Your task to perform on an android device: find which apps use the phone's location Image 0: 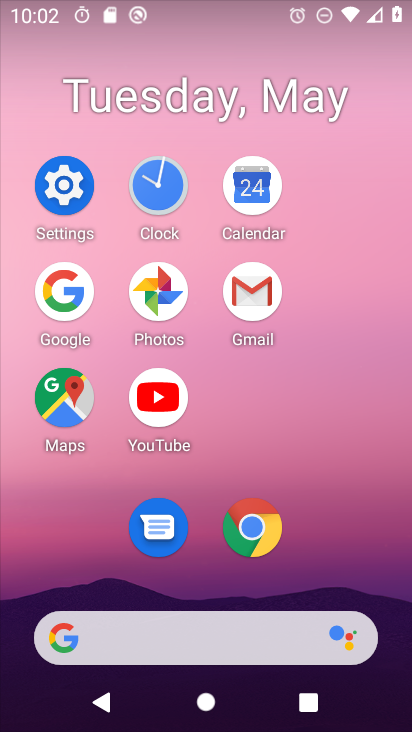
Step 0: click (77, 196)
Your task to perform on an android device: find which apps use the phone's location Image 1: 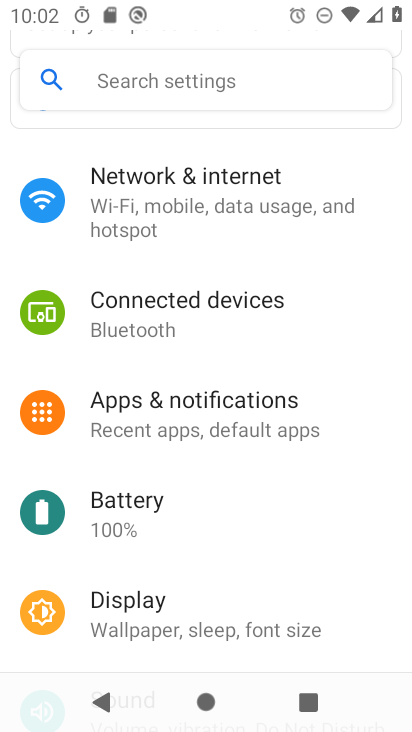
Step 1: drag from (209, 599) to (243, 193)
Your task to perform on an android device: find which apps use the phone's location Image 2: 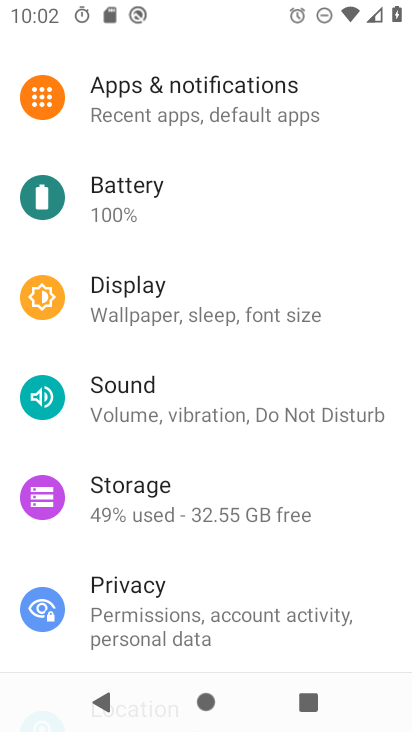
Step 2: drag from (238, 555) to (278, 163)
Your task to perform on an android device: find which apps use the phone's location Image 3: 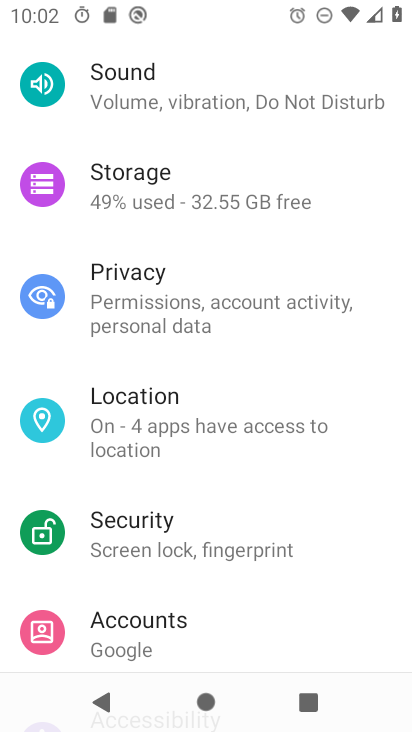
Step 3: click (211, 444)
Your task to perform on an android device: find which apps use the phone's location Image 4: 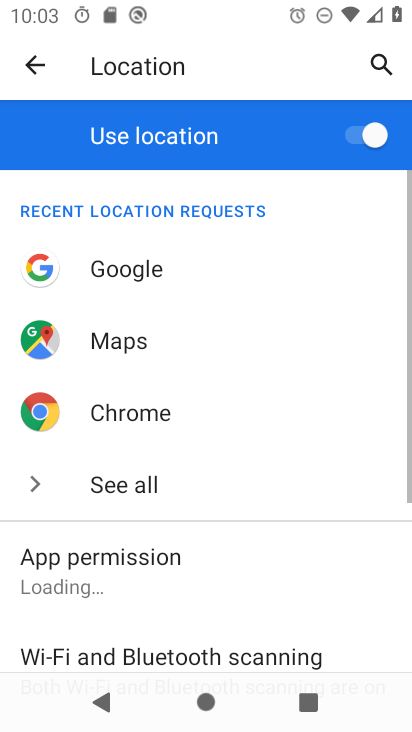
Step 4: task complete